Your task to perform on an android device: toggle data saver in the chrome app Image 0: 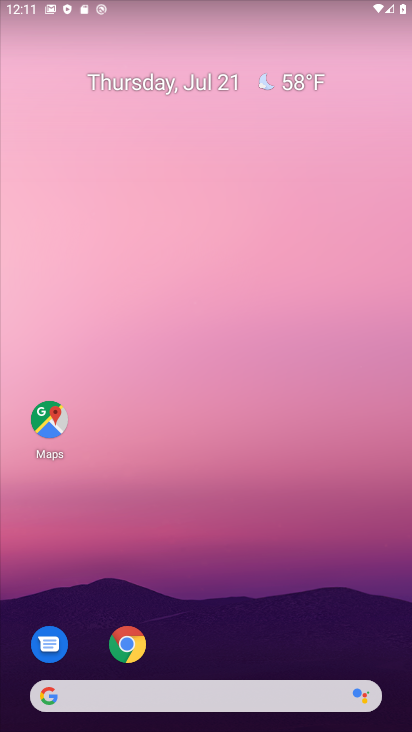
Step 0: drag from (243, 654) to (108, 45)
Your task to perform on an android device: toggle data saver in the chrome app Image 1: 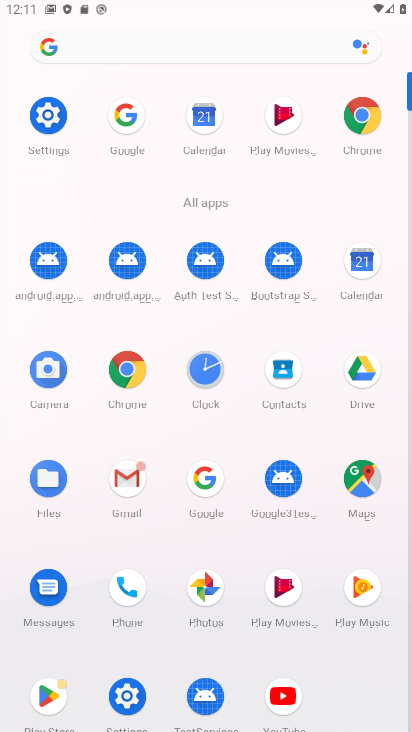
Step 1: click (110, 362)
Your task to perform on an android device: toggle data saver in the chrome app Image 2: 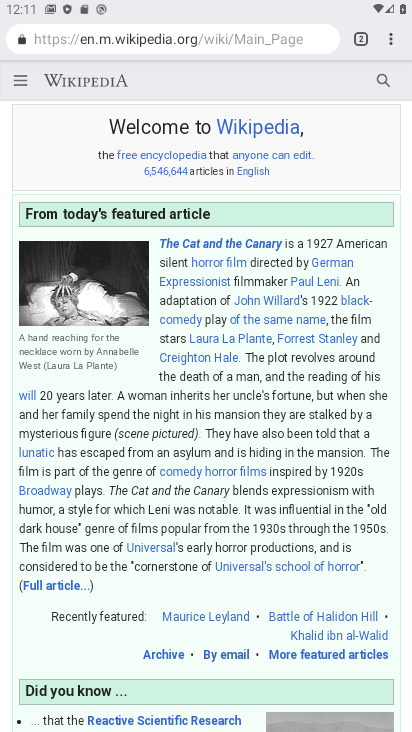
Step 2: click (387, 45)
Your task to perform on an android device: toggle data saver in the chrome app Image 3: 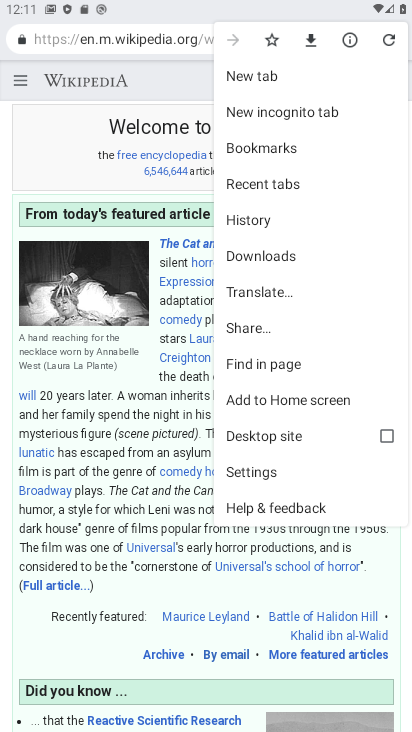
Step 3: click (261, 463)
Your task to perform on an android device: toggle data saver in the chrome app Image 4: 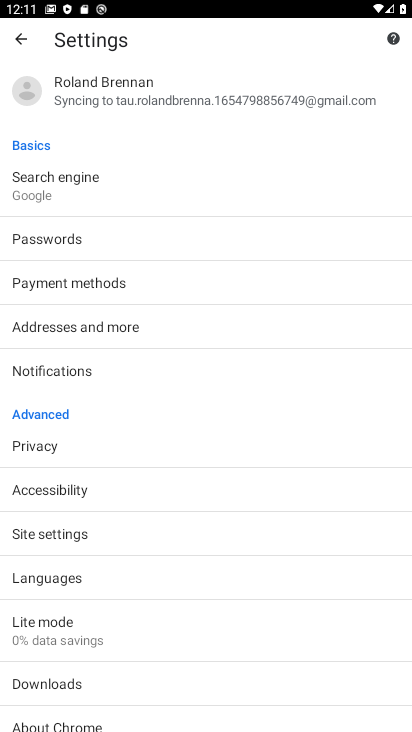
Step 4: click (67, 615)
Your task to perform on an android device: toggle data saver in the chrome app Image 5: 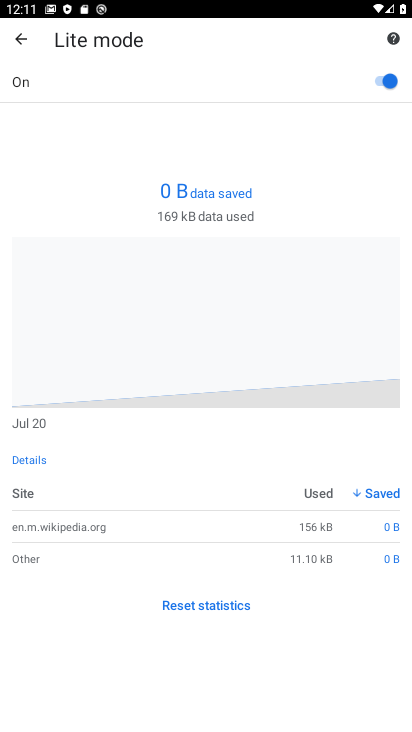
Step 5: click (380, 80)
Your task to perform on an android device: toggle data saver in the chrome app Image 6: 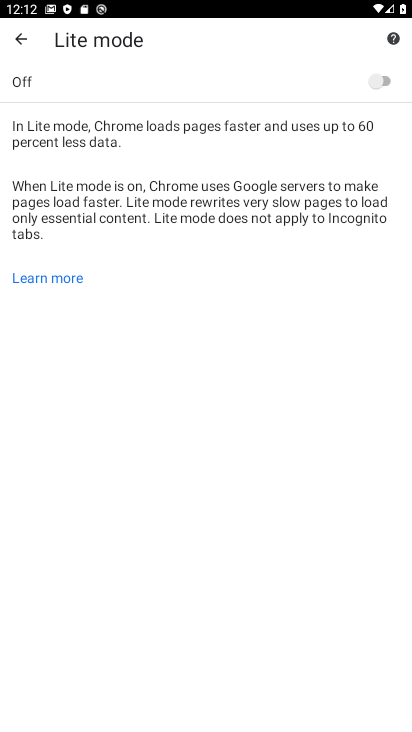
Step 6: task complete